Your task to perform on an android device: View the shopping cart on costco. Image 0: 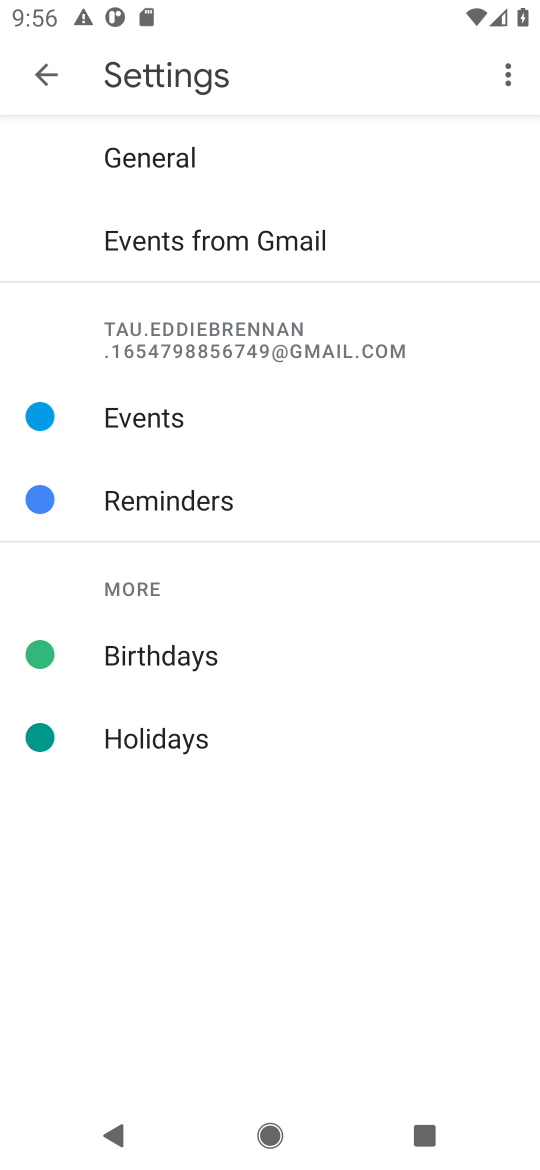
Step 0: press home button
Your task to perform on an android device: View the shopping cart on costco. Image 1: 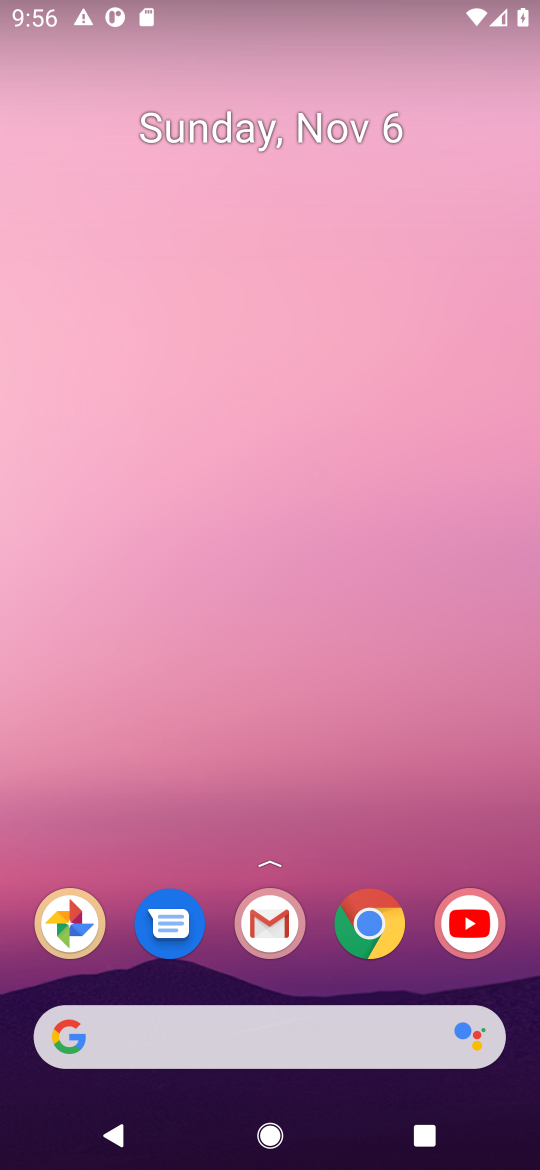
Step 1: click (380, 940)
Your task to perform on an android device: View the shopping cart on costco. Image 2: 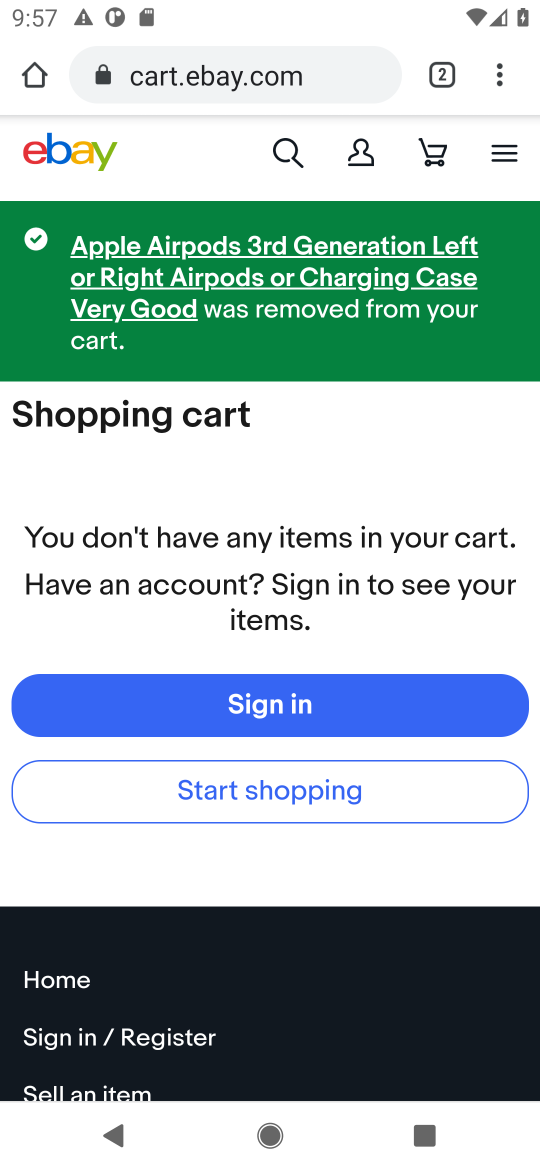
Step 2: click (192, 79)
Your task to perform on an android device: View the shopping cart on costco. Image 3: 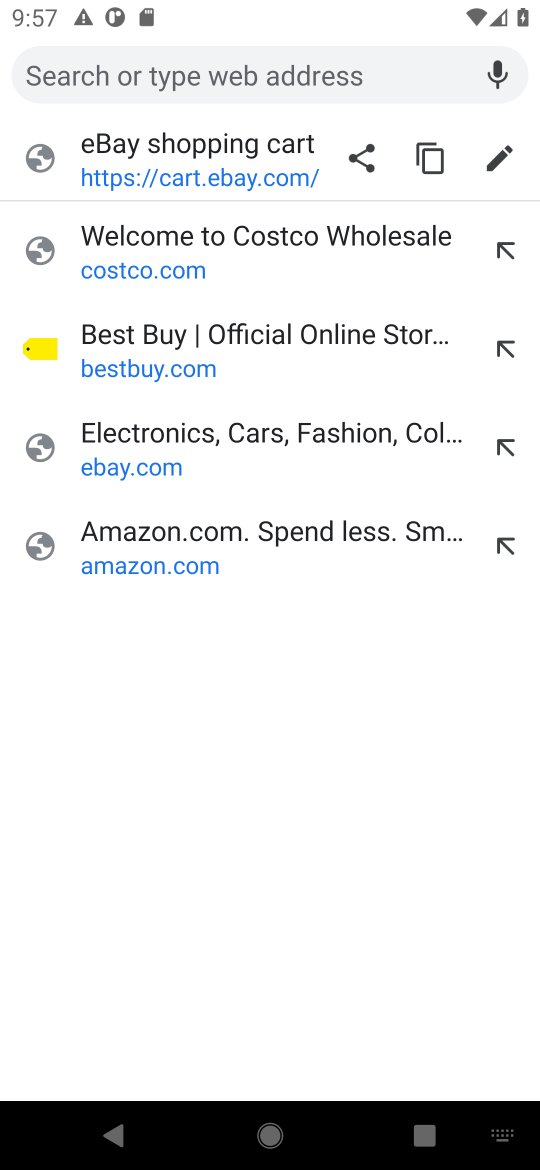
Step 3: click (100, 278)
Your task to perform on an android device: View the shopping cart on costco. Image 4: 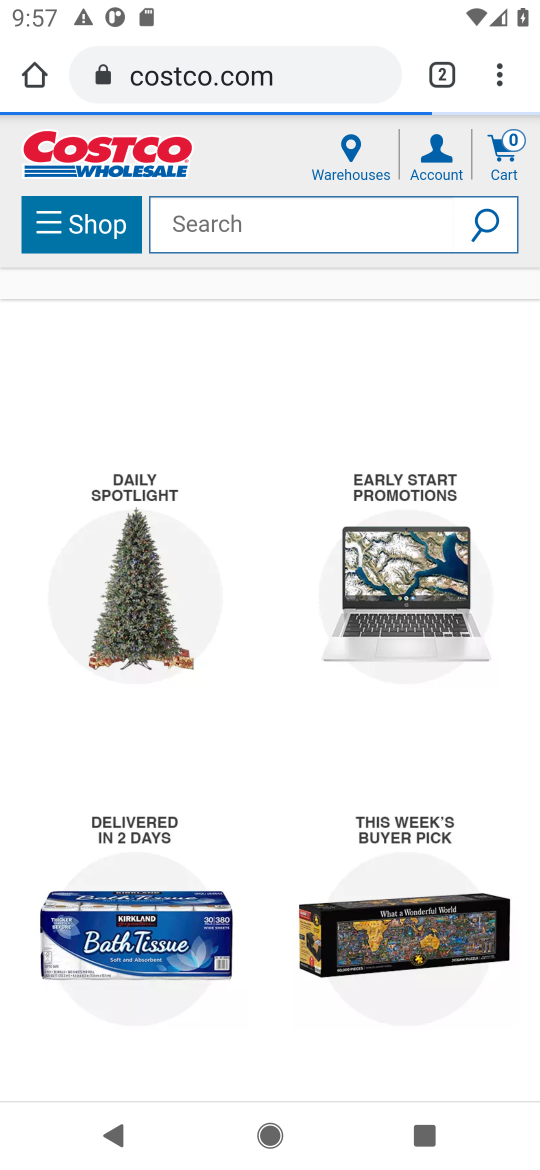
Step 4: click (504, 142)
Your task to perform on an android device: View the shopping cart on costco. Image 5: 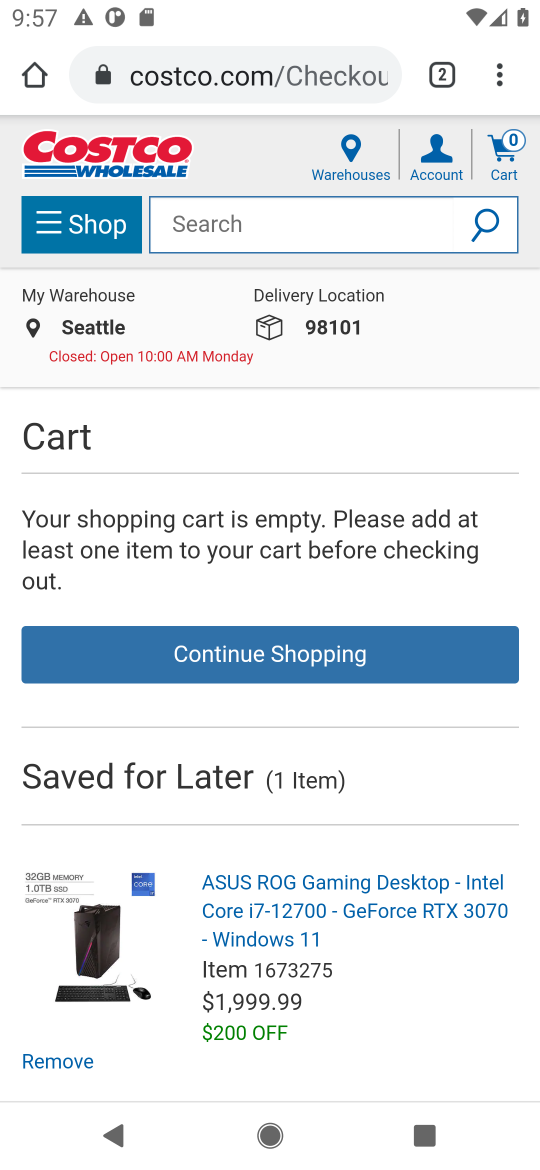
Step 5: task complete